Your task to perform on an android device: Open Chrome and go to the settings page Image 0: 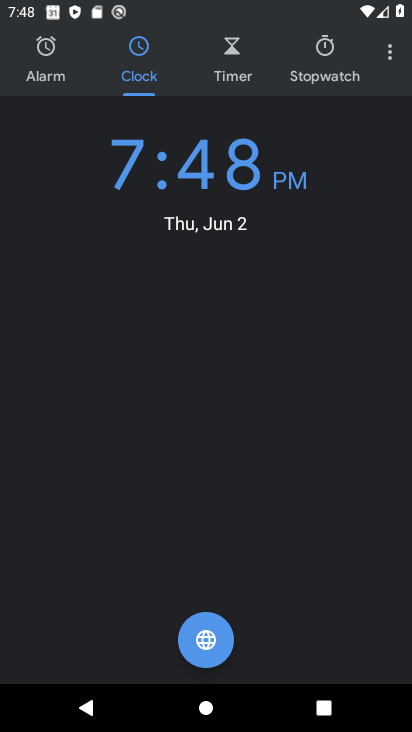
Step 0: press home button
Your task to perform on an android device: Open Chrome and go to the settings page Image 1: 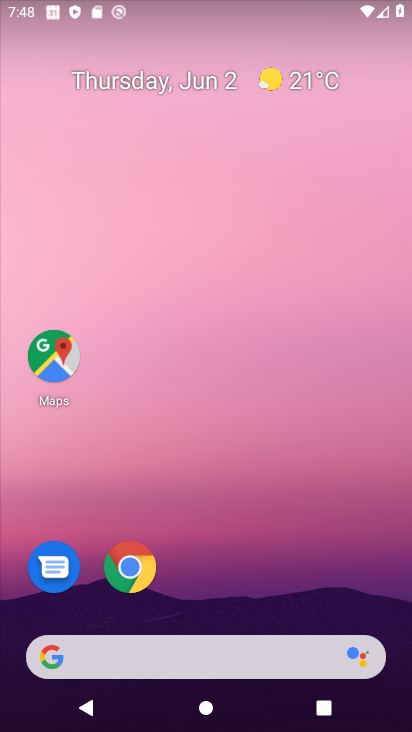
Step 1: click (133, 566)
Your task to perform on an android device: Open Chrome and go to the settings page Image 2: 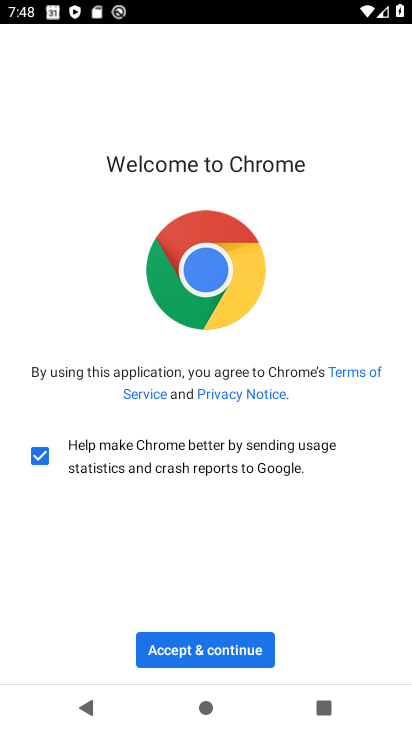
Step 2: click (198, 645)
Your task to perform on an android device: Open Chrome and go to the settings page Image 3: 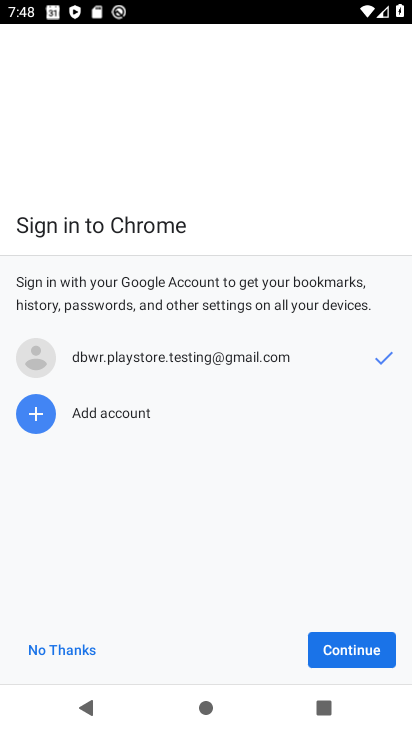
Step 3: click (354, 647)
Your task to perform on an android device: Open Chrome and go to the settings page Image 4: 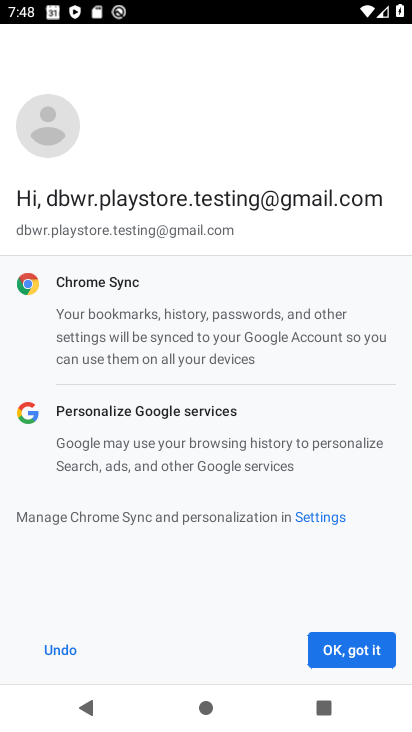
Step 4: click (354, 647)
Your task to perform on an android device: Open Chrome and go to the settings page Image 5: 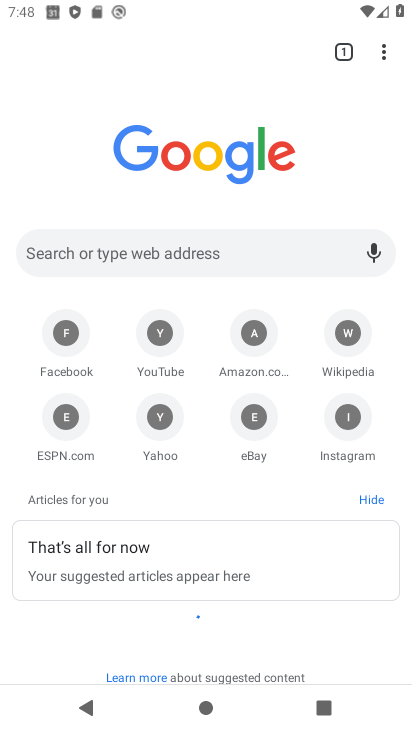
Step 5: click (383, 54)
Your task to perform on an android device: Open Chrome and go to the settings page Image 6: 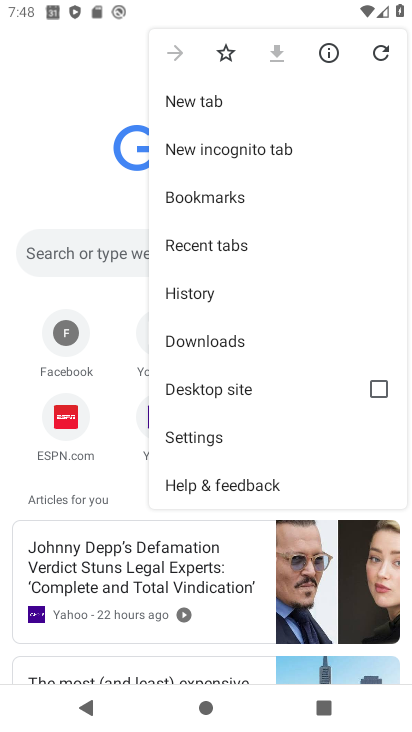
Step 6: click (214, 437)
Your task to perform on an android device: Open Chrome and go to the settings page Image 7: 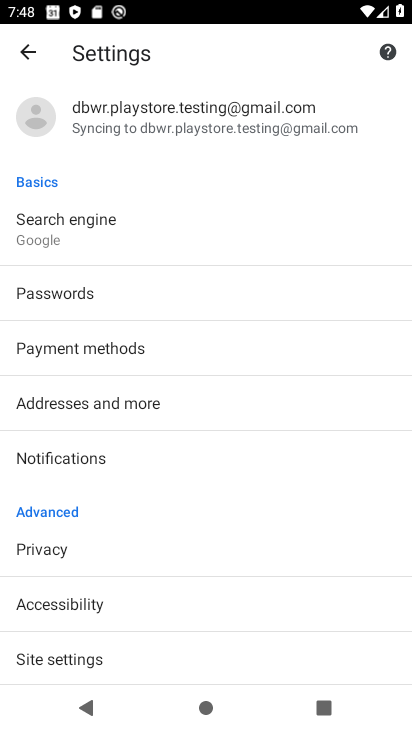
Step 7: task complete